Your task to perform on an android device: Go to wifi settings Image 0: 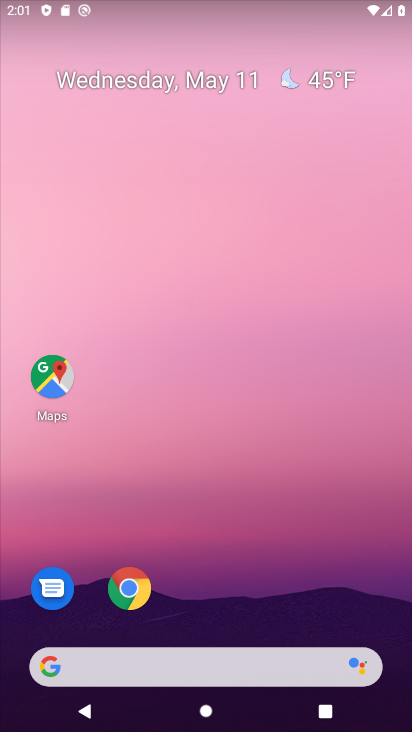
Step 0: drag from (202, 527) to (202, 98)
Your task to perform on an android device: Go to wifi settings Image 1: 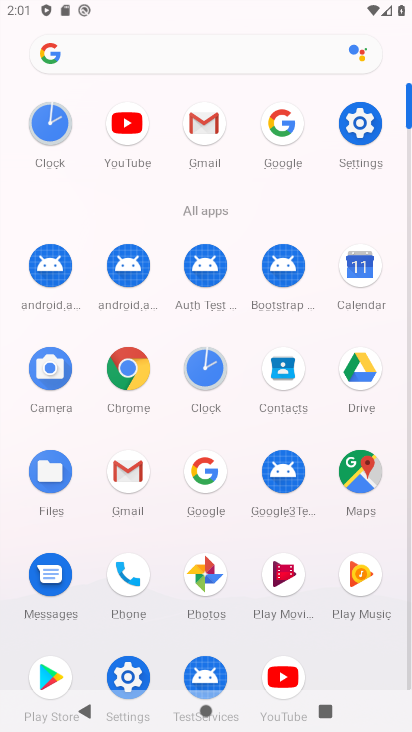
Step 1: click (350, 140)
Your task to perform on an android device: Go to wifi settings Image 2: 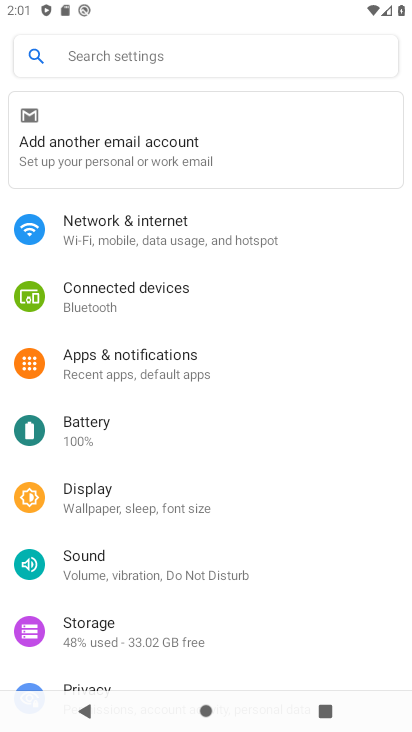
Step 2: click (168, 141)
Your task to perform on an android device: Go to wifi settings Image 3: 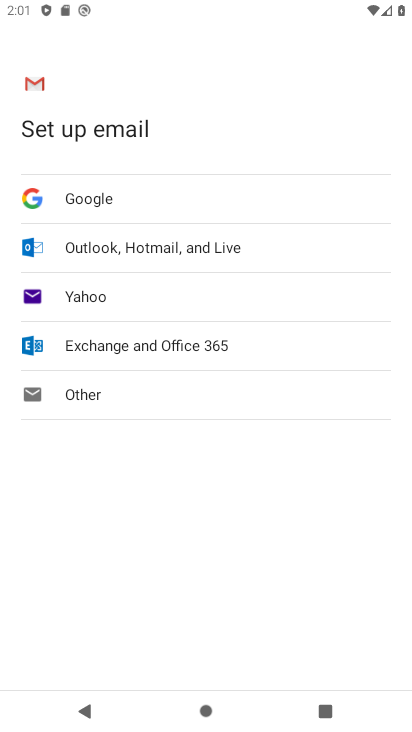
Step 3: press back button
Your task to perform on an android device: Go to wifi settings Image 4: 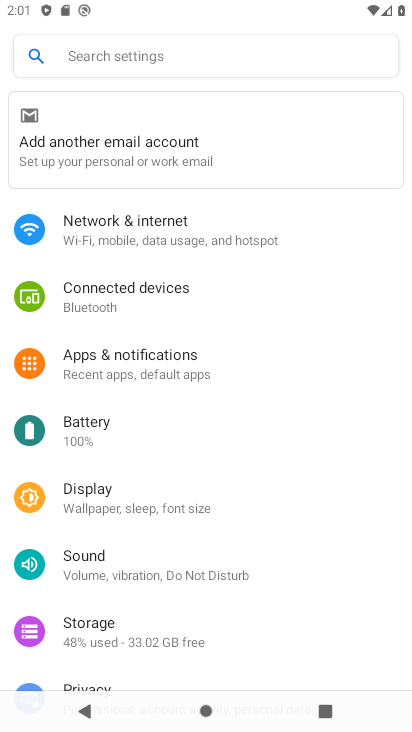
Step 4: click (158, 223)
Your task to perform on an android device: Go to wifi settings Image 5: 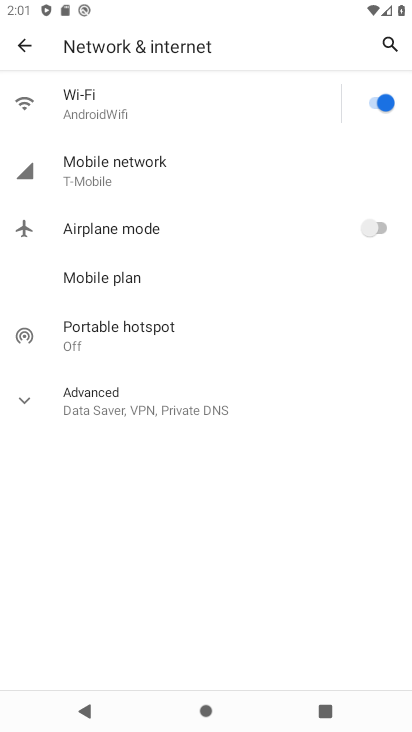
Step 5: click (196, 110)
Your task to perform on an android device: Go to wifi settings Image 6: 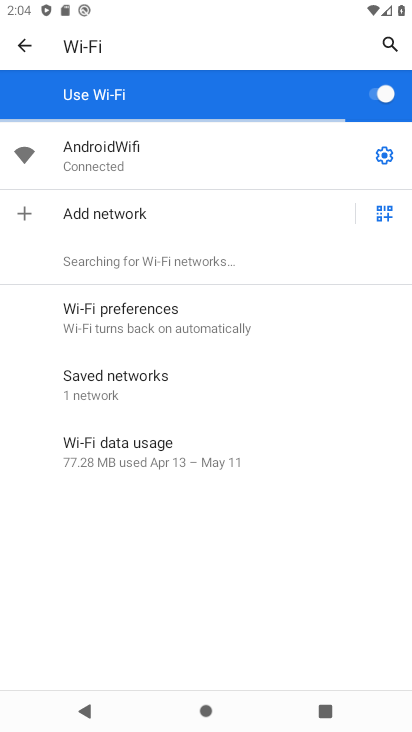
Step 6: task complete